Your task to perform on an android device: Open settings on Google Maps Image 0: 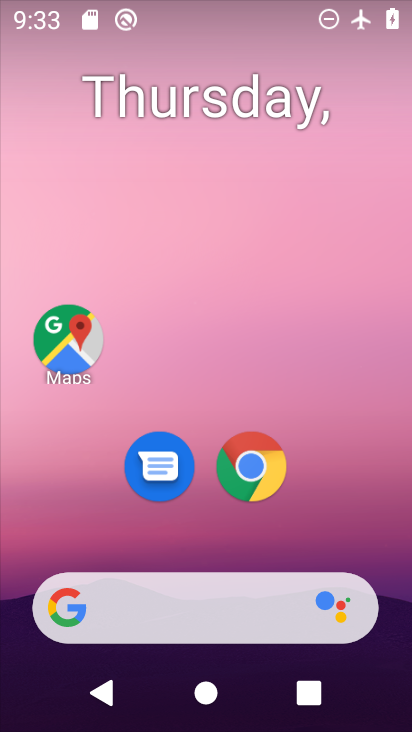
Step 0: drag from (228, 585) to (242, 139)
Your task to perform on an android device: Open settings on Google Maps Image 1: 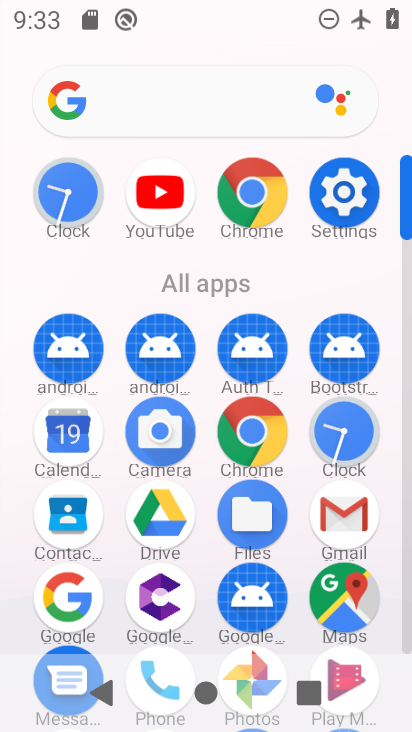
Step 1: click (348, 571)
Your task to perform on an android device: Open settings on Google Maps Image 2: 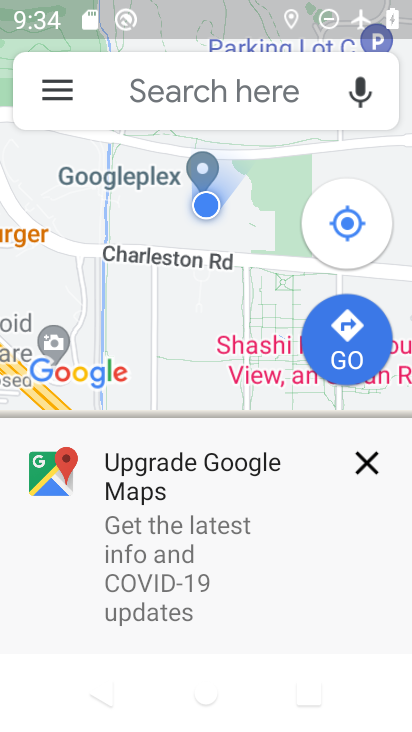
Step 2: click (58, 86)
Your task to perform on an android device: Open settings on Google Maps Image 3: 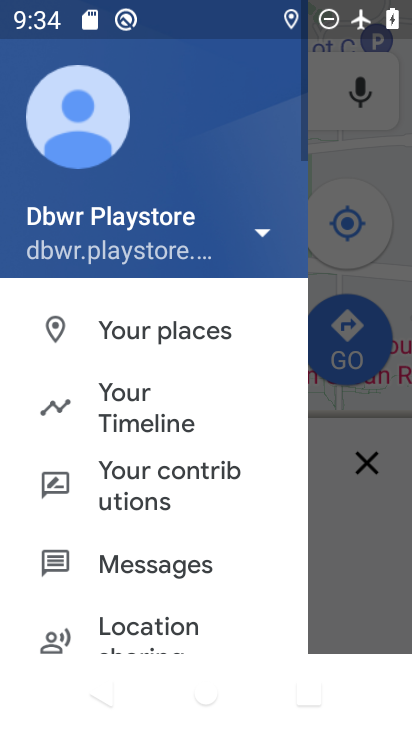
Step 3: click (141, 411)
Your task to perform on an android device: Open settings on Google Maps Image 4: 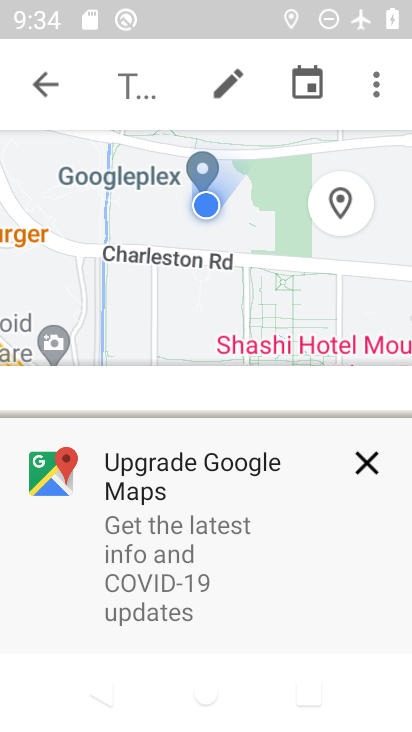
Step 4: click (366, 456)
Your task to perform on an android device: Open settings on Google Maps Image 5: 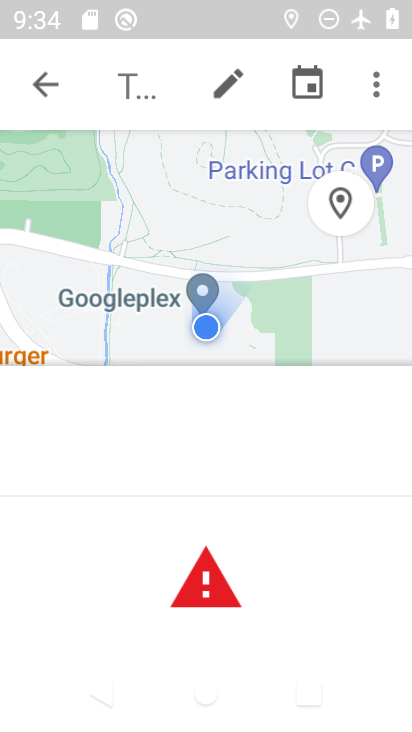
Step 5: task complete